Your task to perform on an android device: Open Google Maps Image 0: 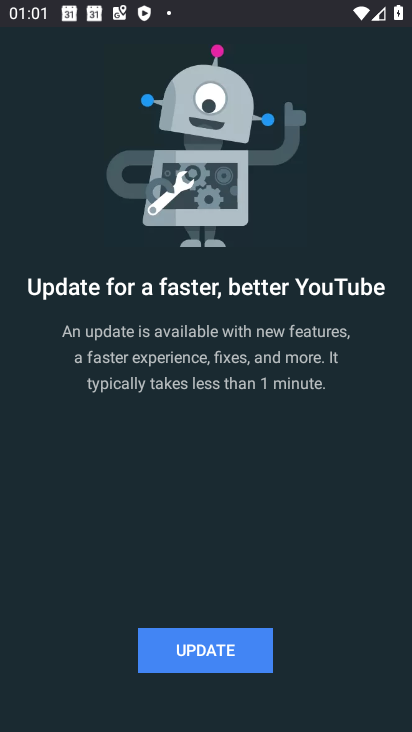
Step 0: press home button
Your task to perform on an android device: Open Google Maps Image 1: 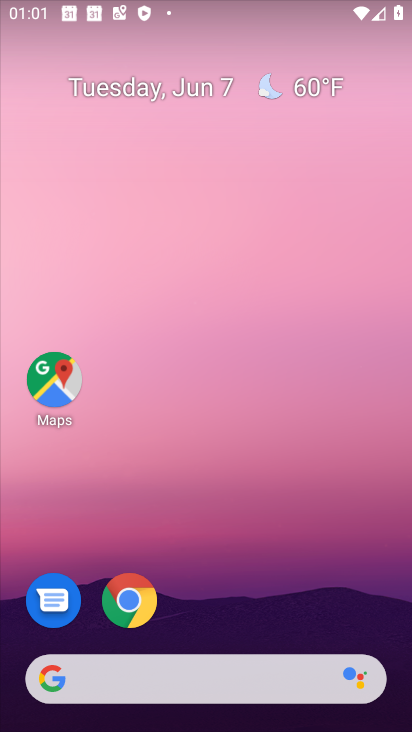
Step 1: drag from (206, 721) to (242, 96)
Your task to perform on an android device: Open Google Maps Image 2: 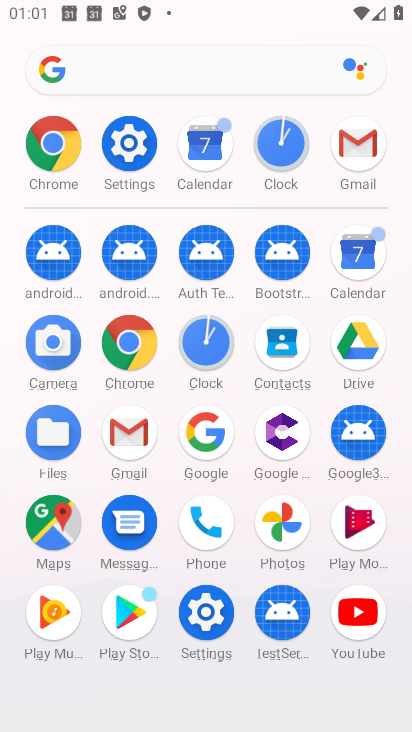
Step 2: click (42, 522)
Your task to perform on an android device: Open Google Maps Image 3: 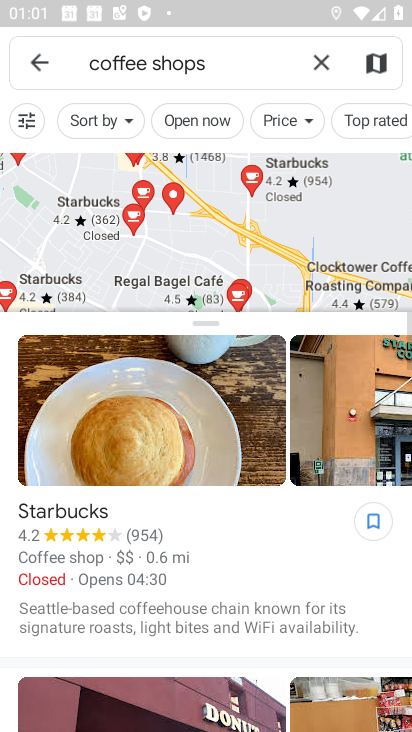
Step 3: task complete